Your task to perform on an android device: Search for Italian restaurants on Maps Image 0: 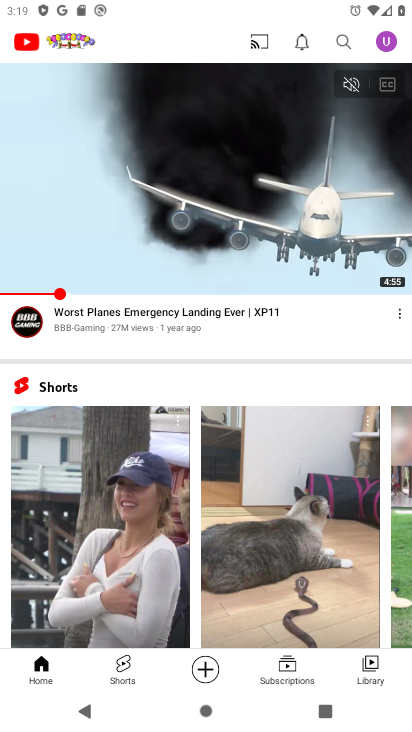
Step 0: press home button
Your task to perform on an android device: Search for Italian restaurants on Maps Image 1: 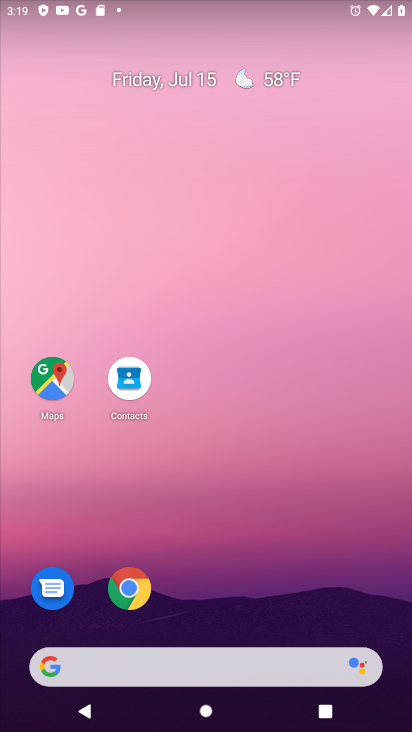
Step 1: click (42, 367)
Your task to perform on an android device: Search for Italian restaurants on Maps Image 2: 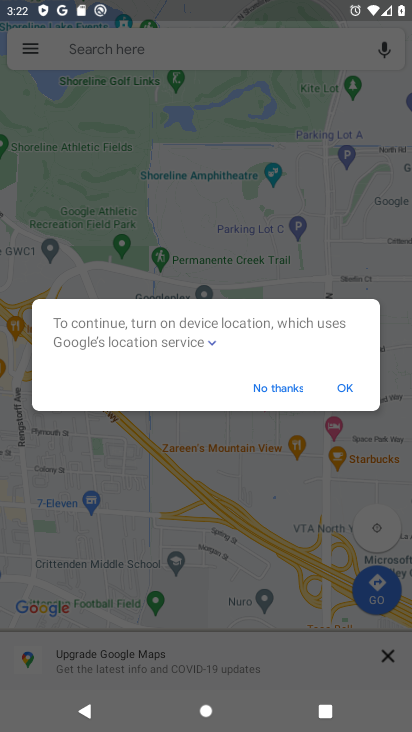
Step 2: click (344, 399)
Your task to perform on an android device: Search for Italian restaurants on Maps Image 3: 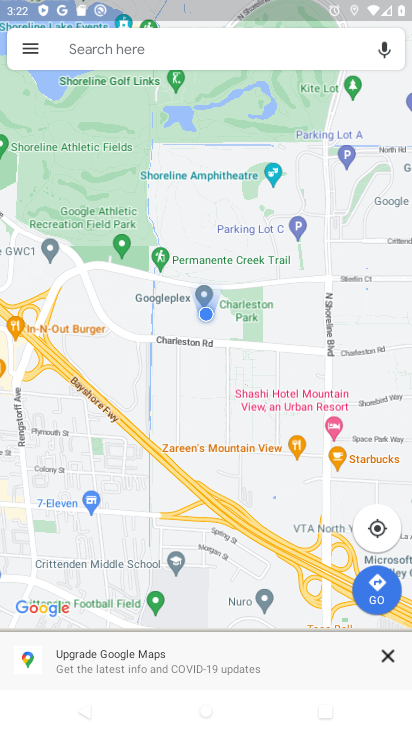
Step 3: click (275, 55)
Your task to perform on an android device: Search for Italian restaurants on Maps Image 4: 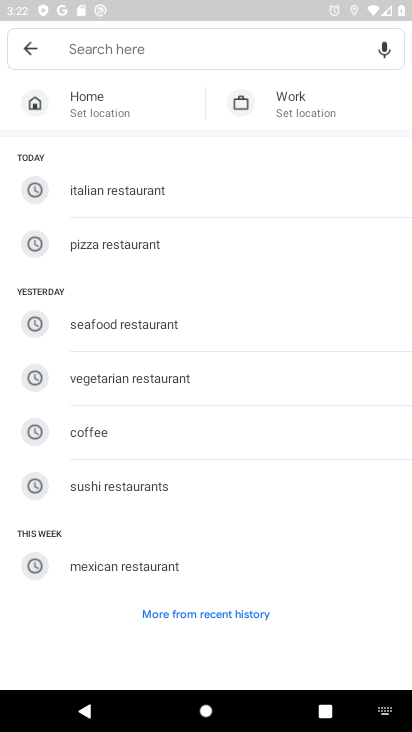
Step 4: click (168, 195)
Your task to perform on an android device: Search for Italian restaurants on Maps Image 5: 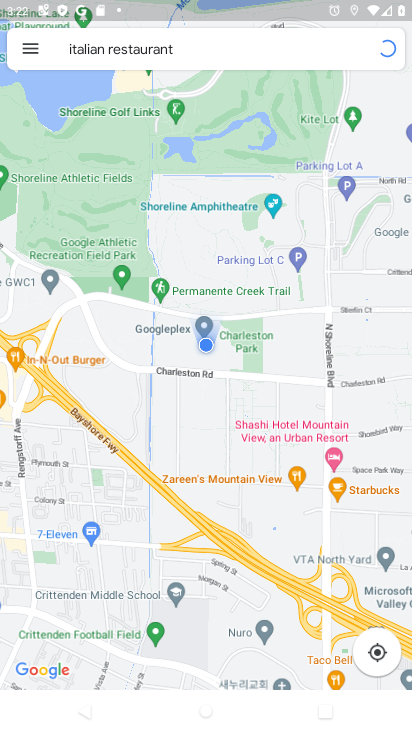
Step 5: task complete